Your task to perform on an android device: toggle wifi Image 0: 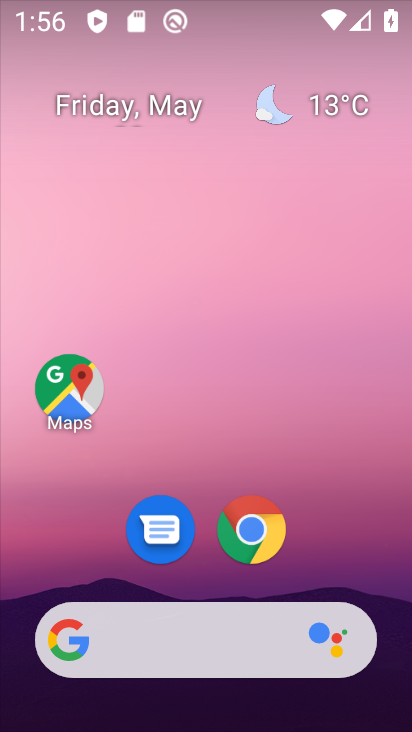
Step 0: drag from (317, 551) to (285, 196)
Your task to perform on an android device: toggle wifi Image 1: 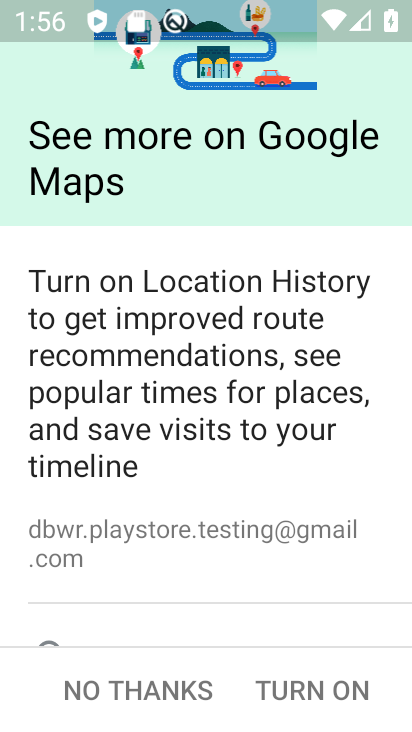
Step 1: press home button
Your task to perform on an android device: toggle wifi Image 2: 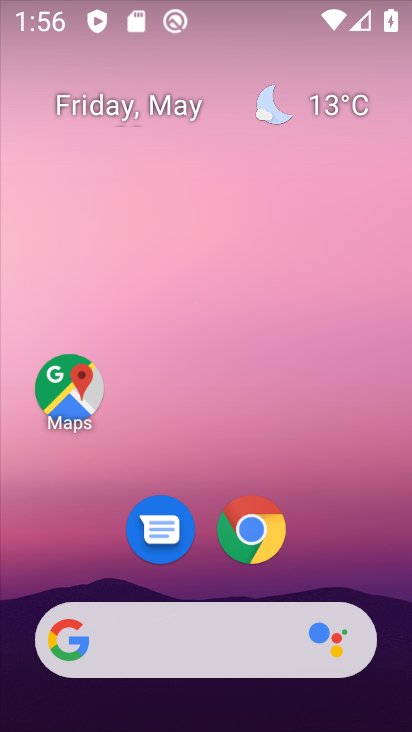
Step 2: drag from (342, 533) to (338, 165)
Your task to perform on an android device: toggle wifi Image 3: 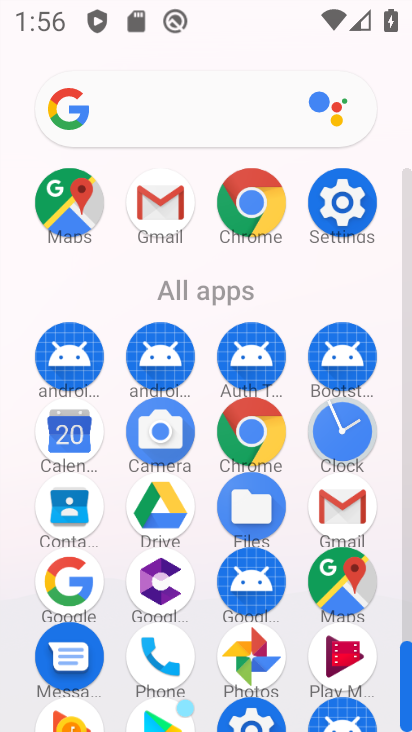
Step 3: click (335, 204)
Your task to perform on an android device: toggle wifi Image 4: 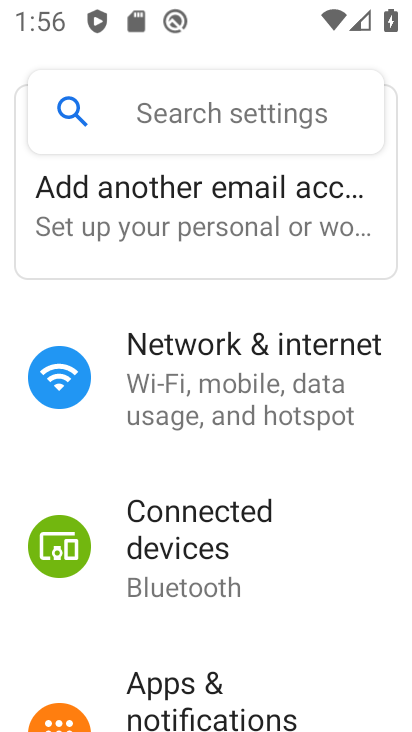
Step 4: click (277, 389)
Your task to perform on an android device: toggle wifi Image 5: 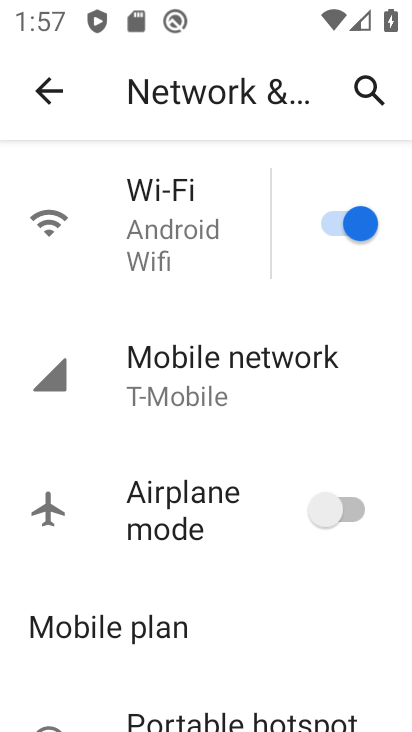
Step 5: click (322, 224)
Your task to perform on an android device: toggle wifi Image 6: 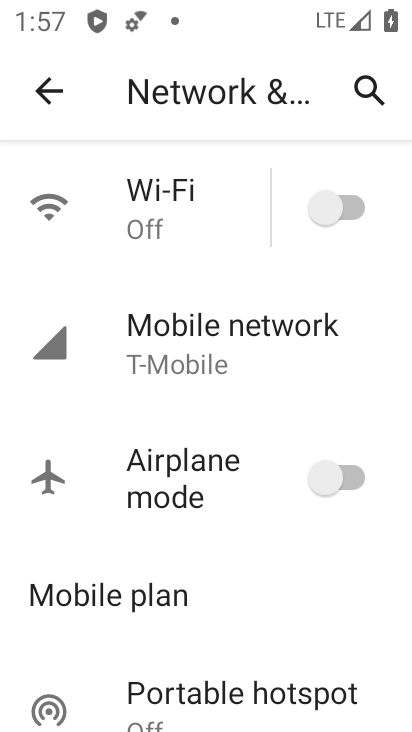
Step 6: task complete